Your task to perform on an android device: check storage Image 0: 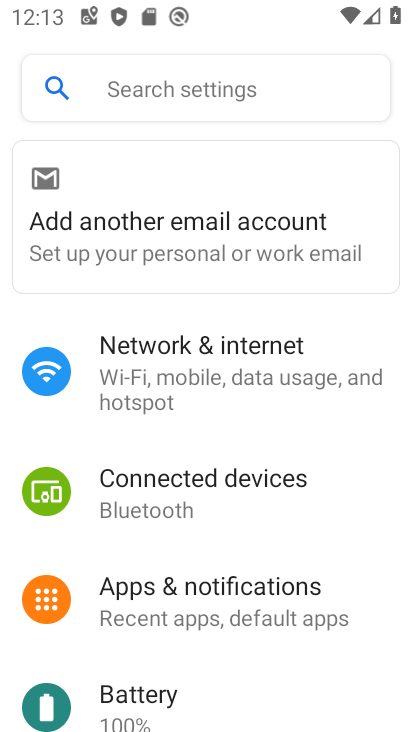
Step 0: drag from (229, 619) to (274, 199)
Your task to perform on an android device: check storage Image 1: 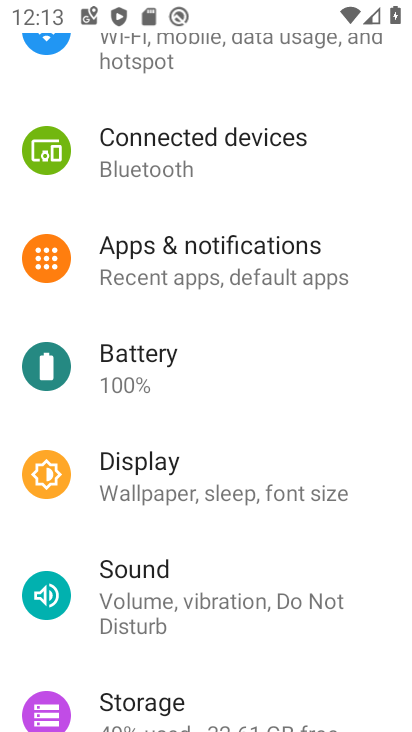
Step 1: drag from (288, 470) to (334, 160)
Your task to perform on an android device: check storage Image 2: 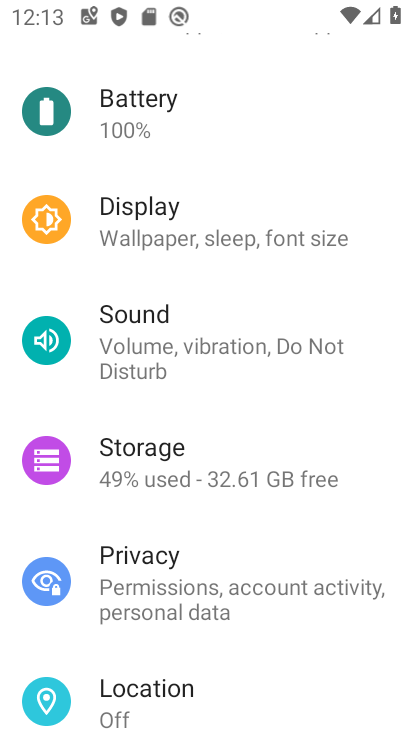
Step 2: click (232, 459)
Your task to perform on an android device: check storage Image 3: 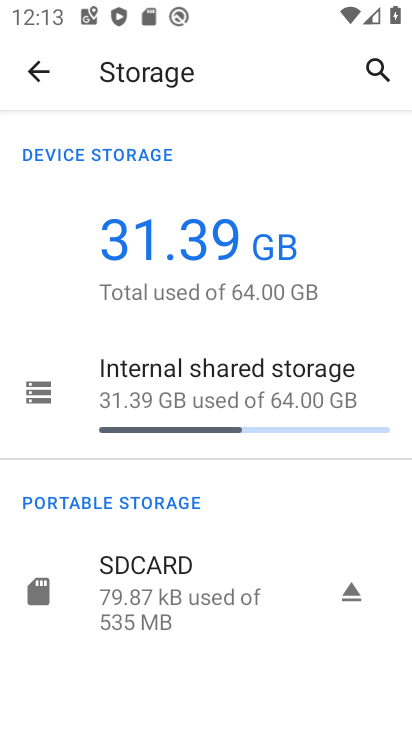
Step 3: click (228, 398)
Your task to perform on an android device: check storage Image 4: 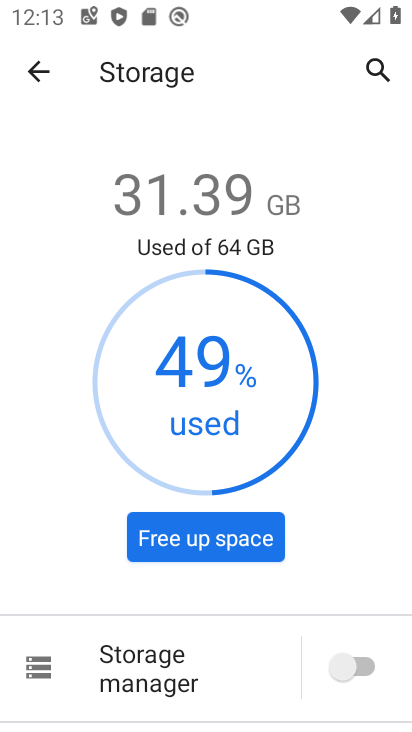
Step 4: task complete